Your task to perform on an android device: Turn on the flashlight Image 0: 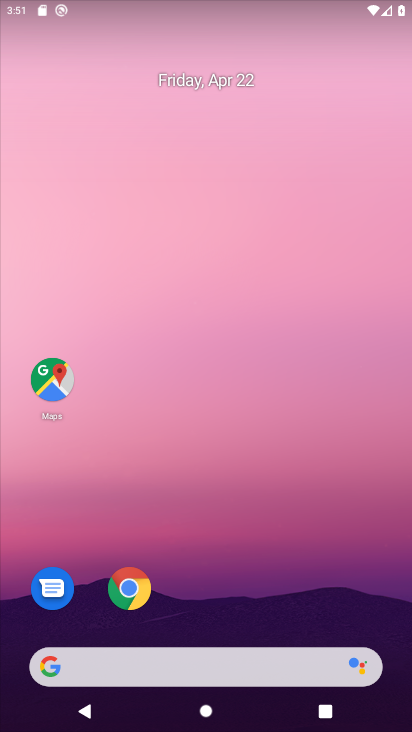
Step 0: drag from (183, 637) to (129, 18)
Your task to perform on an android device: Turn on the flashlight Image 1: 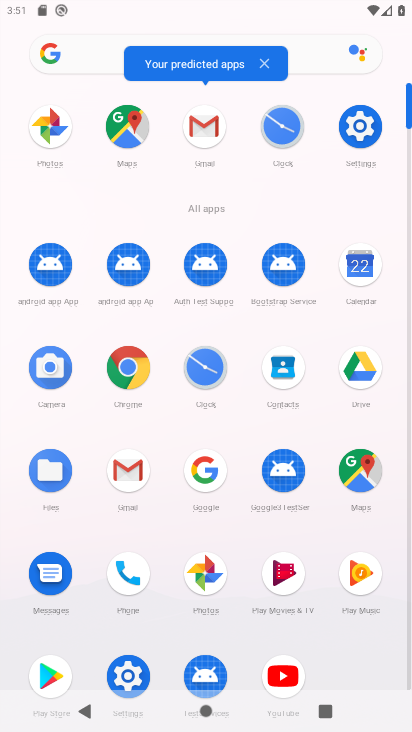
Step 1: click (365, 122)
Your task to perform on an android device: Turn on the flashlight Image 2: 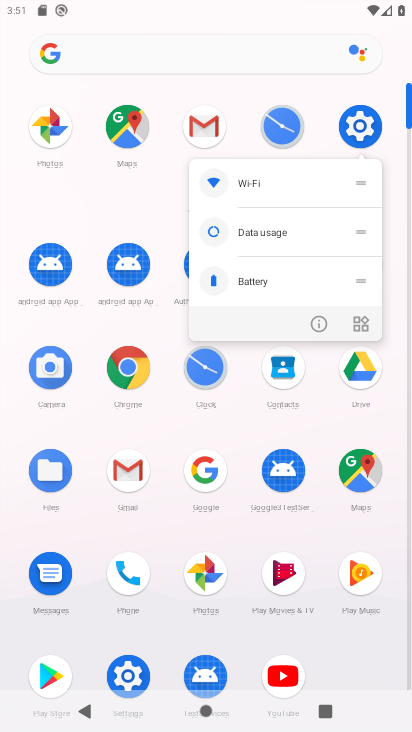
Step 2: click (353, 132)
Your task to perform on an android device: Turn on the flashlight Image 3: 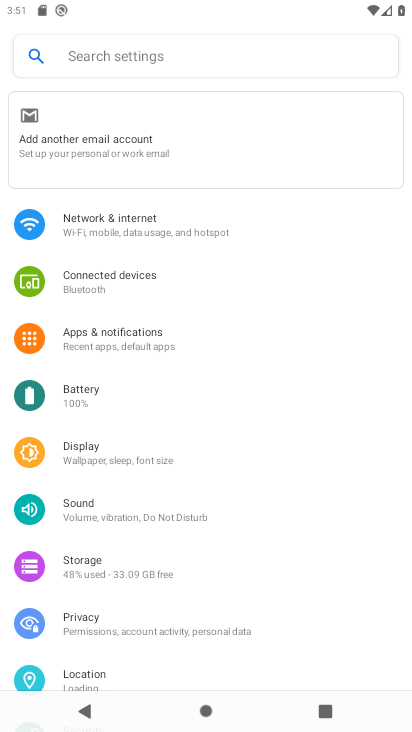
Step 3: task complete